Your task to perform on an android device: turn off airplane mode Image 0: 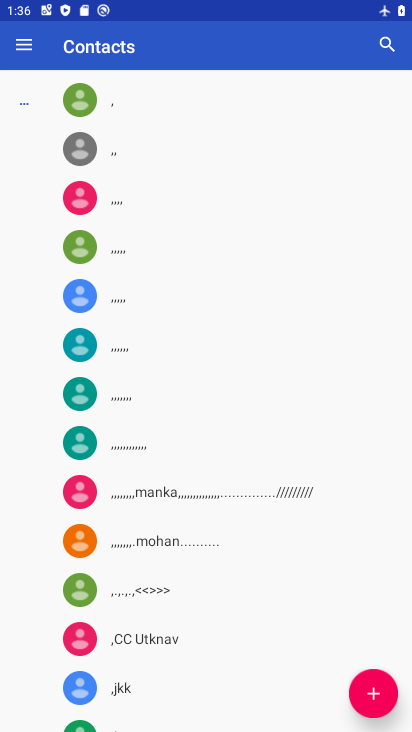
Step 0: drag from (357, 8) to (277, 598)
Your task to perform on an android device: turn off airplane mode Image 1: 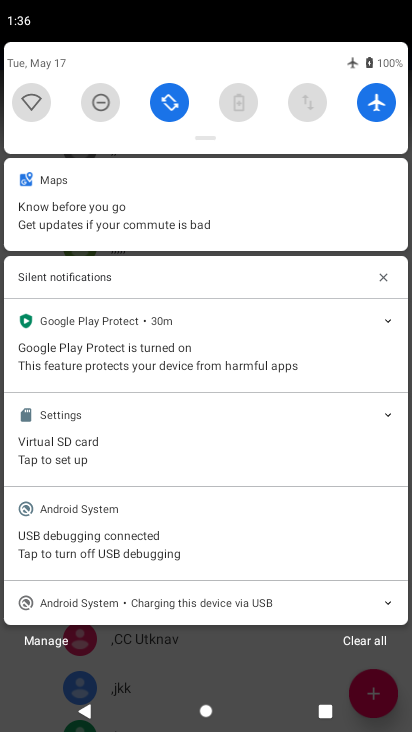
Step 1: click (372, 100)
Your task to perform on an android device: turn off airplane mode Image 2: 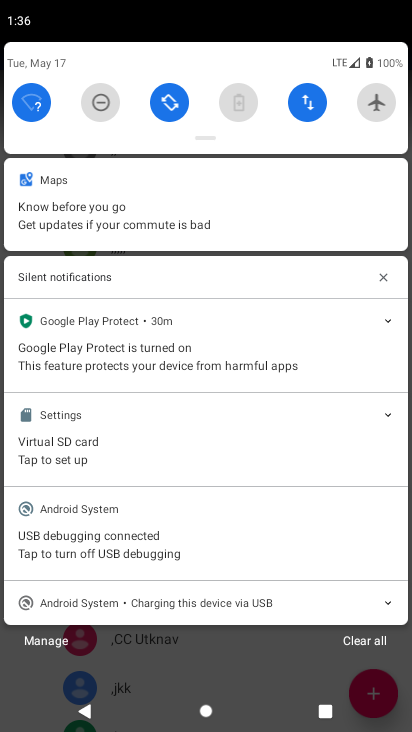
Step 2: task complete